Your task to perform on an android device: Open ESPN.com Image 0: 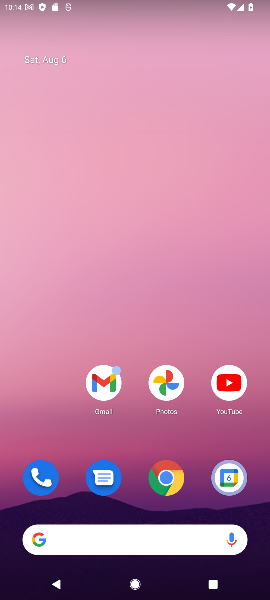
Step 0: click (167, 481)
Your task to perform on an android device: Open ESPN.com Image 1: 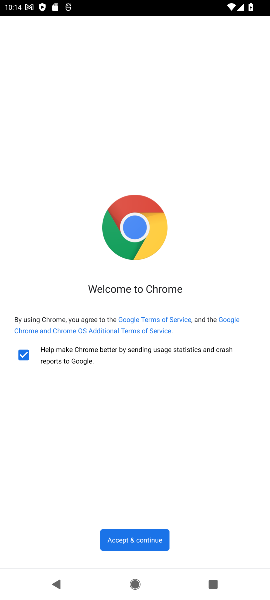
Step 1: press home button
Your task to perform on an android device: Open ESPN.com Image 2: 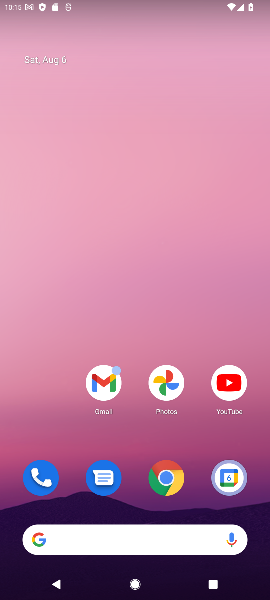
Step 2: click (165, 480)
Your task to perform on an android device: Open ESPN.com Image 3: 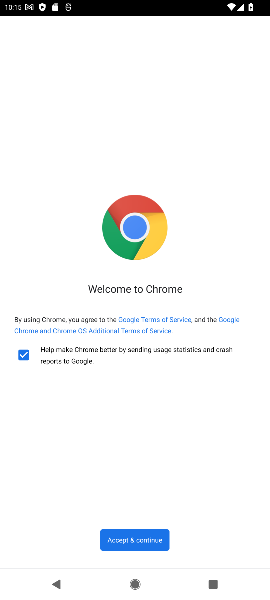
Step 3: click (130, 531)
Your task to perform on an android device: Open ESPN.com Image 4: 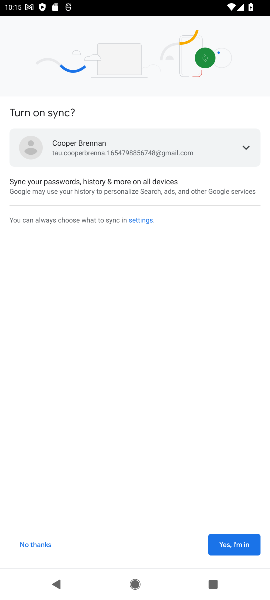
Step 4: press home button
Your task to perform on an android device: Open ESPN.com Image 5: 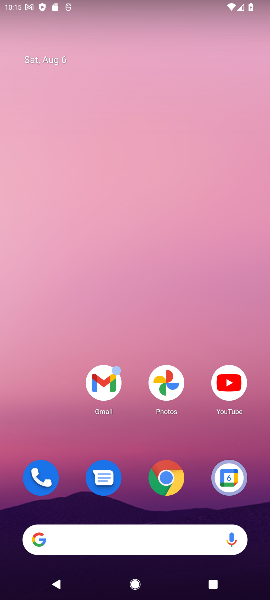
Step 5: click (171, 478)
Your task to perform on an android device: Open ESPN.com Image 6: 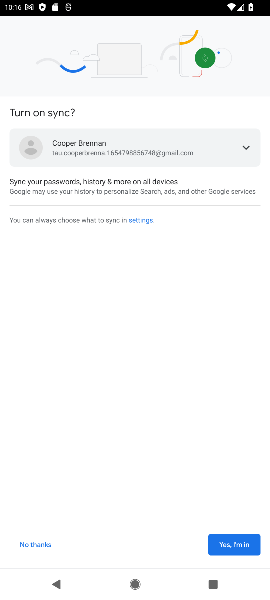
Step 6: click (222, 545)
Your task to perform on an android device: Open ESPN.com Image 7: 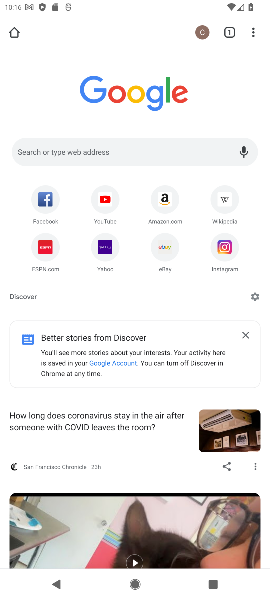
Step 7: click (46, 244)
Your task to perform on an android device: Open ESPN.com Image 8: 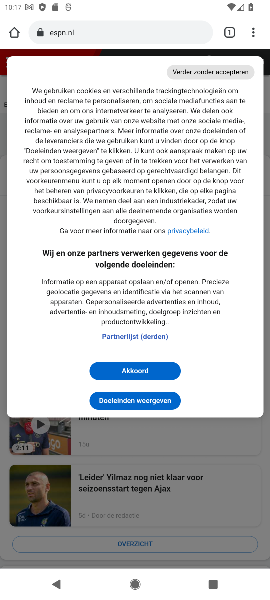
Step 8: click (147, 373)
Your task to perform on an android device: Open ESPN.com Image 9: 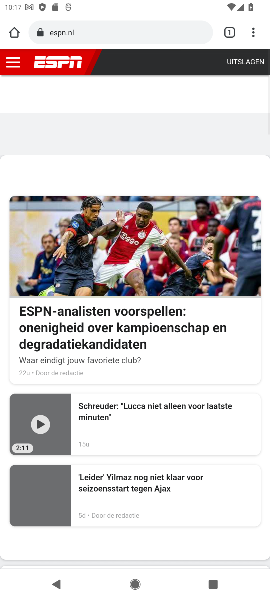
Step 9: task complete